Your task to perform on an android device: Open sound settings Image 0: 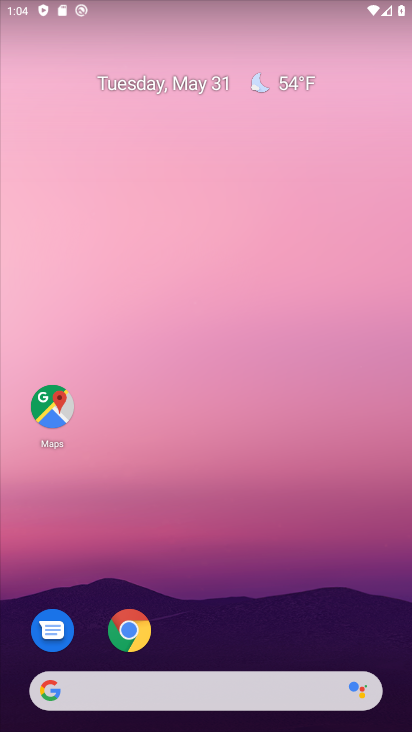
Step 0: drag from (199, 550) to (179, 35)
Your task to perform on an android device: Open sound settings Image 1: 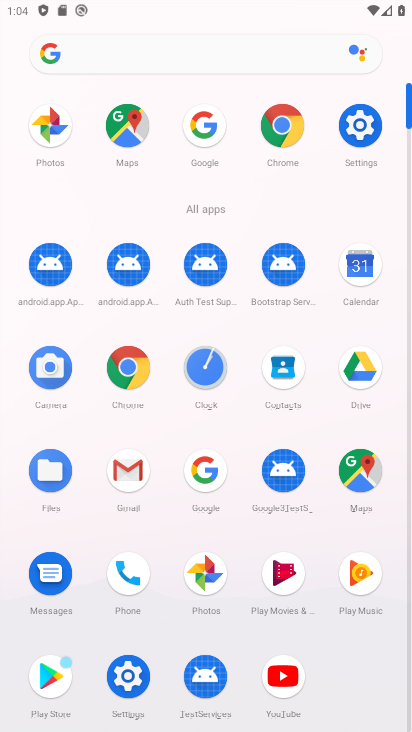
Step 1: click (357, 124)
Your task to perform on an android device: Open sound settings Image 2: 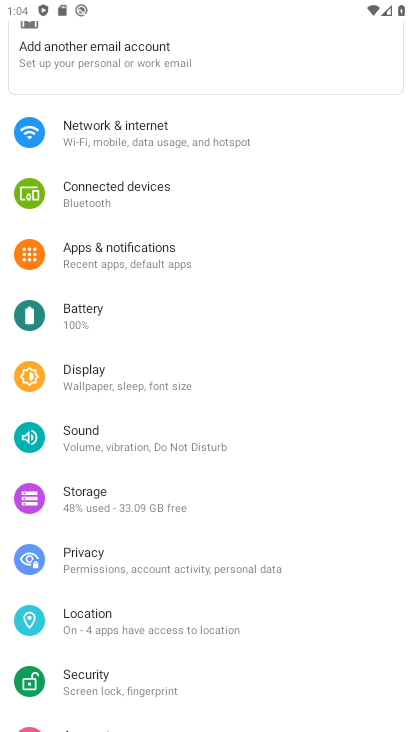
Step 2: click (137, 441)
Your task to perform on an android device: Open sound settings Image 3: 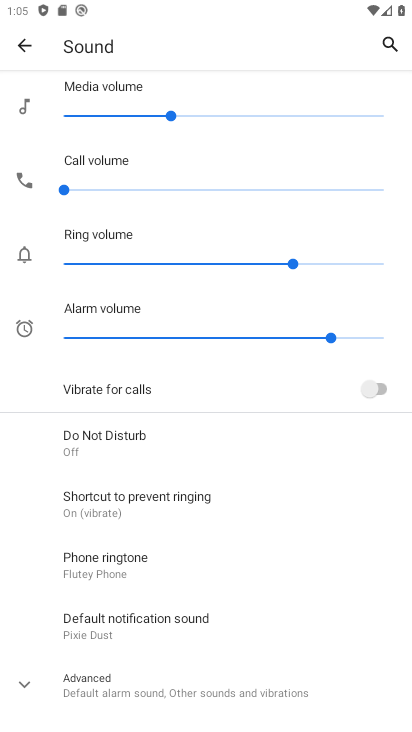
Step 3: task complete